Your task to perform on an android device: choose inbox layout in the gmail app Image 0: 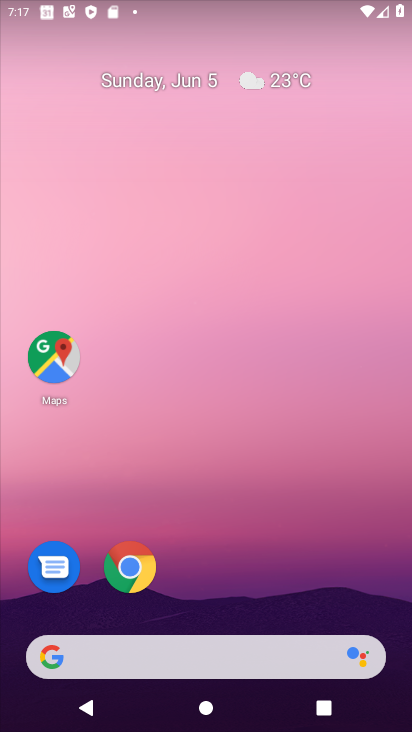
Step 0: drag from (406, 621) to (301, 44)
Your task to perform on an android device: choose inbox layout in the gmail app Image 1: 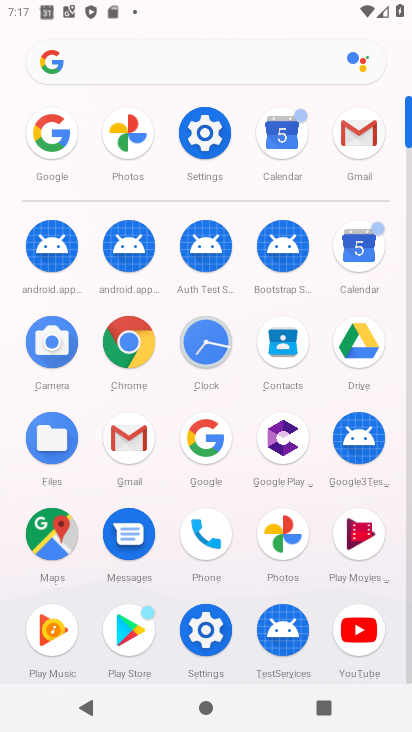
Step 1: click (137, 447)
Your task to perform on an android device: choose inbox layout in the gmail app Image 2: 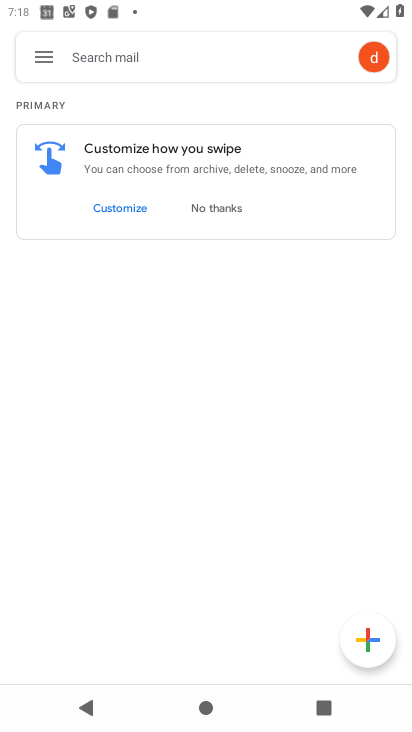
Step 2: task complete